Your task to perform on an android device: snooze an email in the gmail app Image 0: 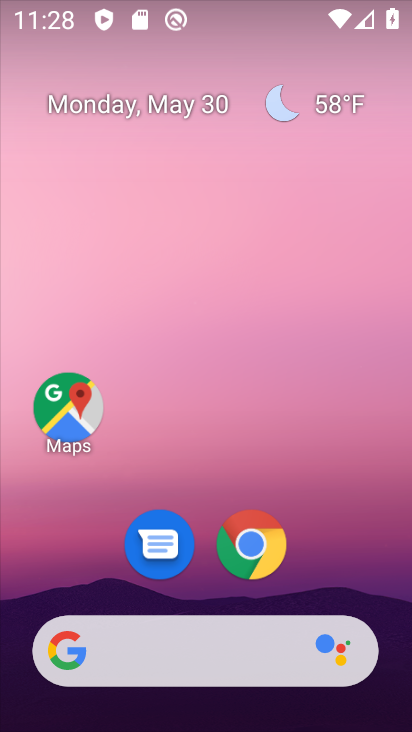
Step 0: task complete